Your task to perform on an android device: turn off notifications in google photos Image 0: 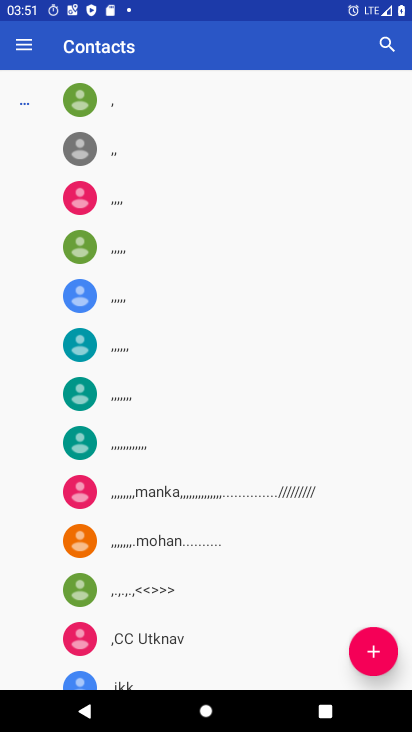
Step 0: press home button
Your task to perform on an android device: turn off notifications in google photos Image 1: 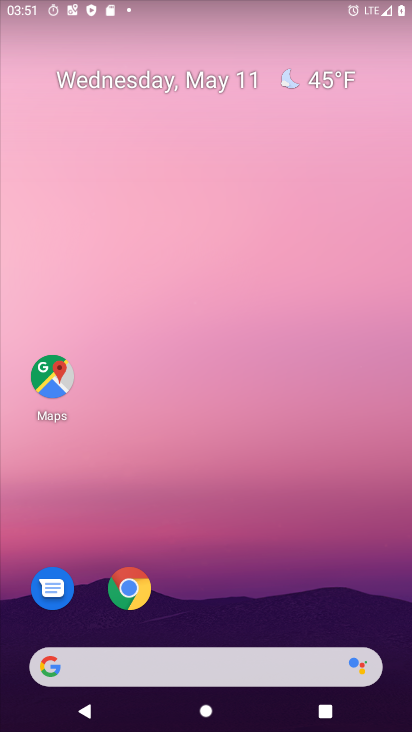
Step 1: drag from (183, 605) to (215, 174)
Your task to perform on an android device: turn off notifications in google photos Image 2: 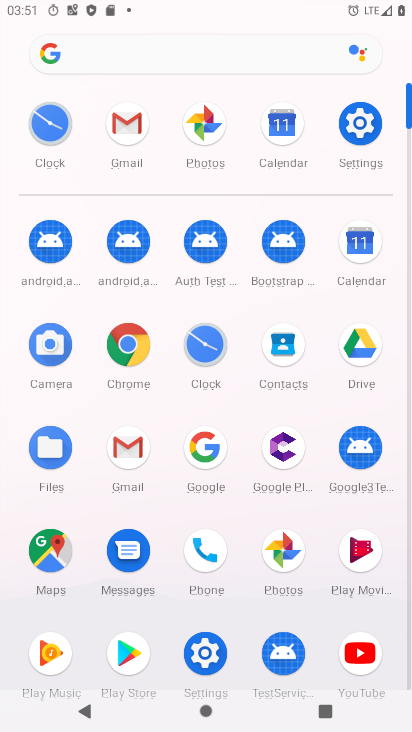
Step 2: click (277, 550)
Your task to perform on an android device: turn off notifications in google photos Image 3: 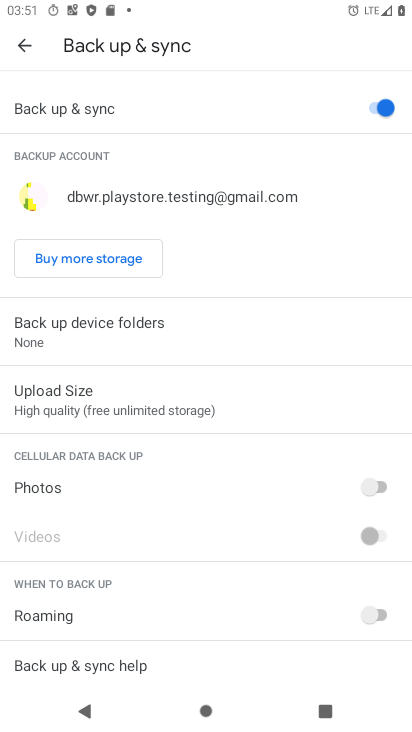
Step 3: drag from (193, 585) to (220, 277)
Your task to perform on an android device: turn off notifications in google photos Image 4: 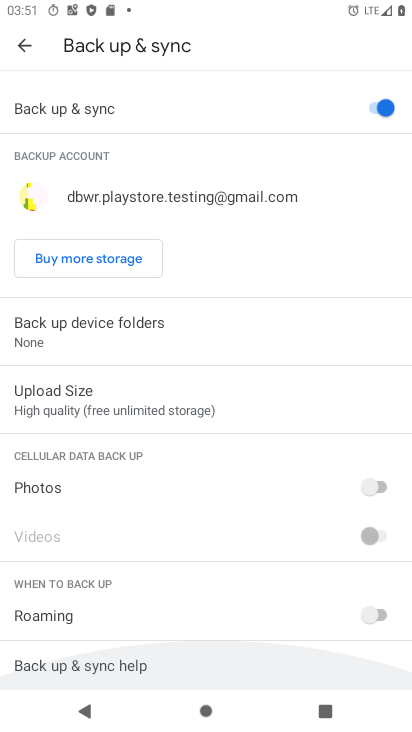
Step 4: drag from (226, 272) to (232, 571)
Your task to perform on an android device: turn off notifications in google photos Image 5: 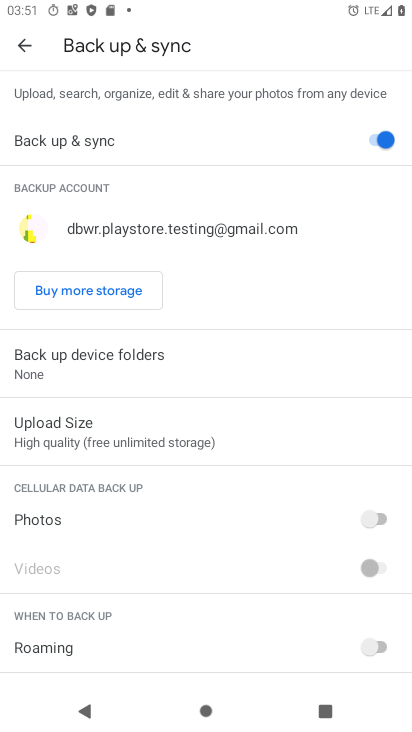
Step 5: click (24, 42)
Your task to perform on an android device: turn off notifications in google photos Image 6: 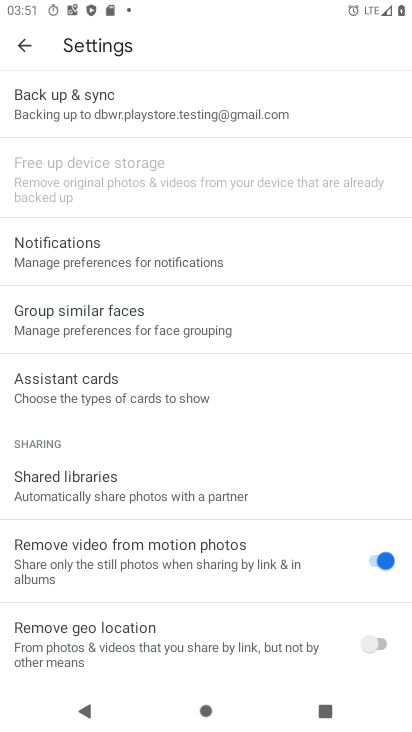
Step 6: click (61, 230)
Your task to perform on an android device: turn off notifications in google photos Image 7: 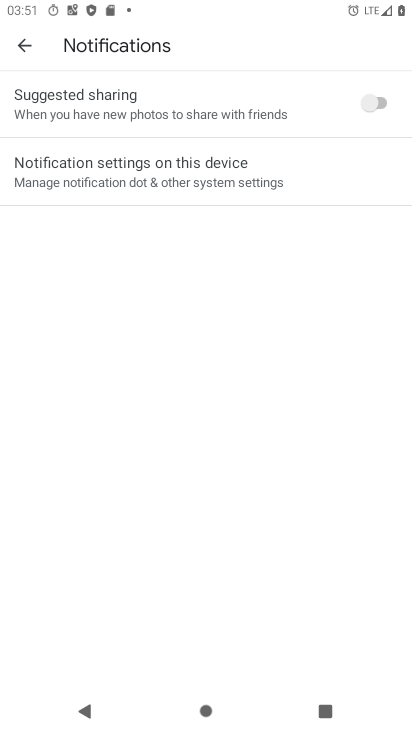
Step 7: click (249, 160)
Your task to perform on an android device: turn off notifications in google photos Image 8: 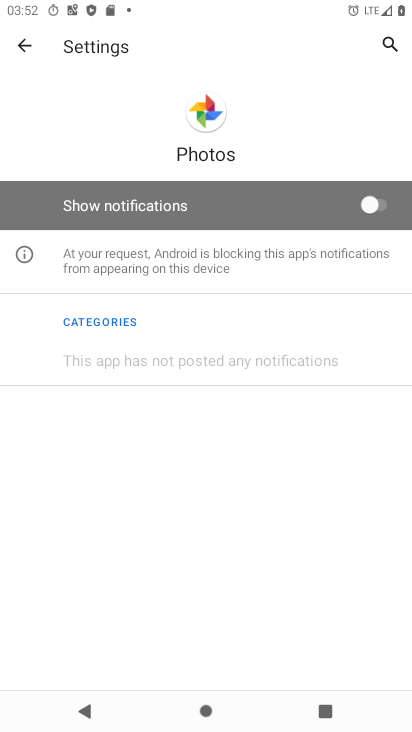
Step 8: task complete